Your task to perform on an android device: Open Google Chrome and open the bookmarks view Image 0: 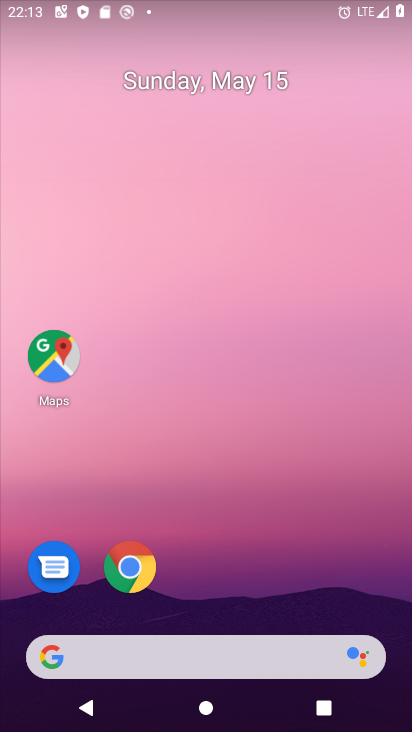
Step 0: click (142, 569)
Your task to perform on an android device: Open Google Chrome and open the bookmarks view Image 1: 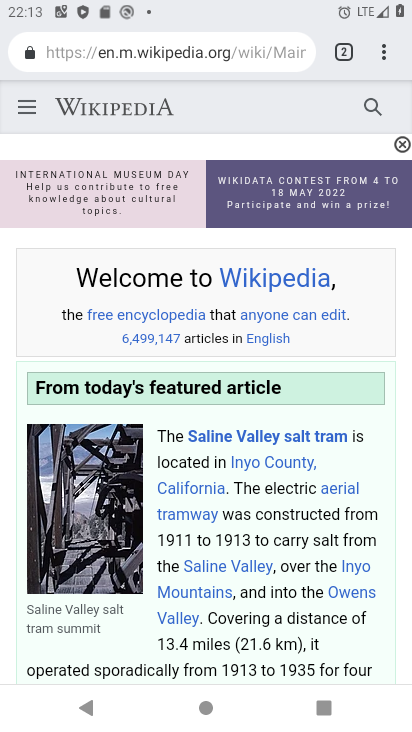
Step 1: click (388, 57)
Your task to perform on an android device: Open Google Chrome and open the bookmarks view Image 2: 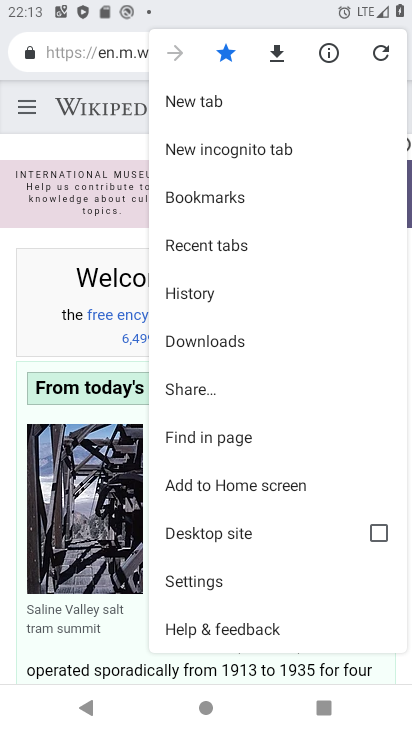
Step 2: click (253, 201)
Your task to perform on an android device: Open Google Chrome and open the bookmarks view Image 3: 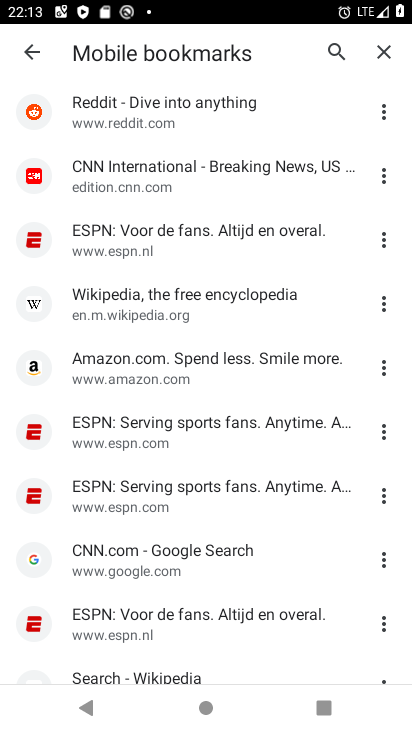
Step 3: click (253, 201)
Your task to perform on an android device: Open Google Chrome and open the bookmarks view Image 4: 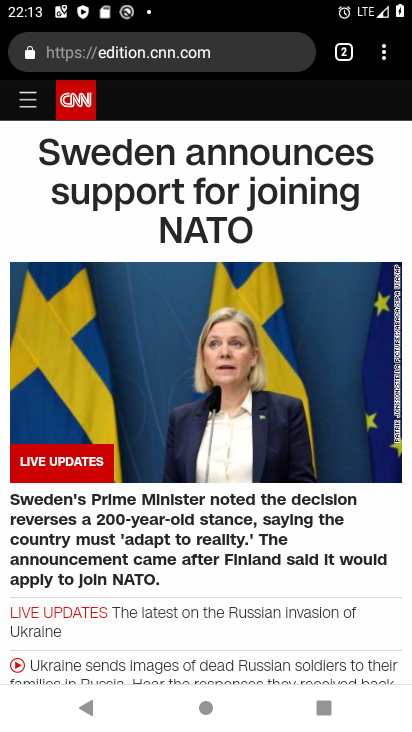
Step 4: task complete